Your task to perform on an android device: see creations saved in the google photos Image 0: 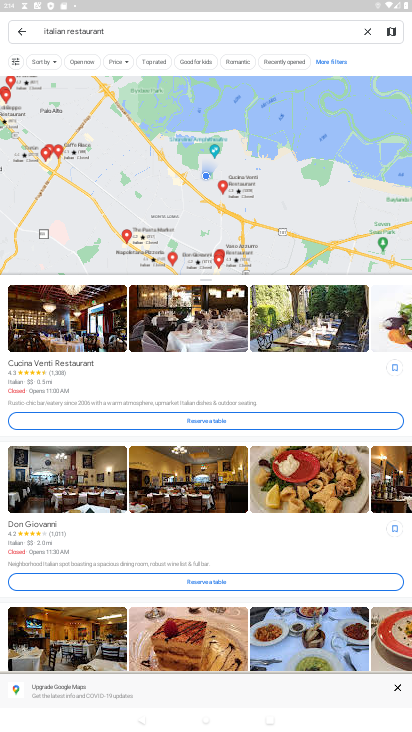
Step 0: press home button
Your task to perform on an android device: see creations saved in the google photos Image 1: 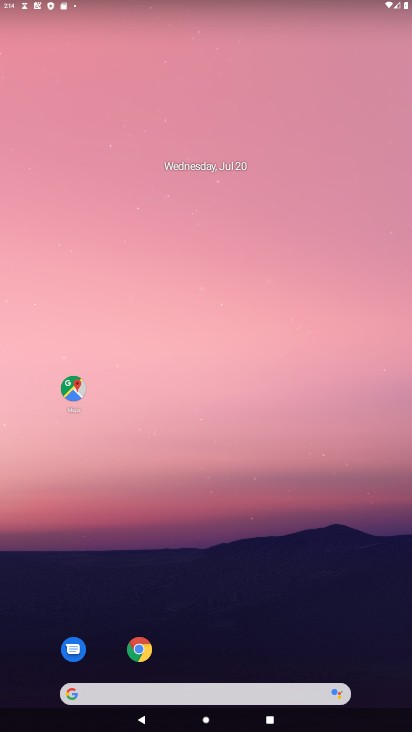
Step 1: drag from (196, 655) to (293, 142)
Your task to perform on an android device: see creations saved in the google photos Image 2: 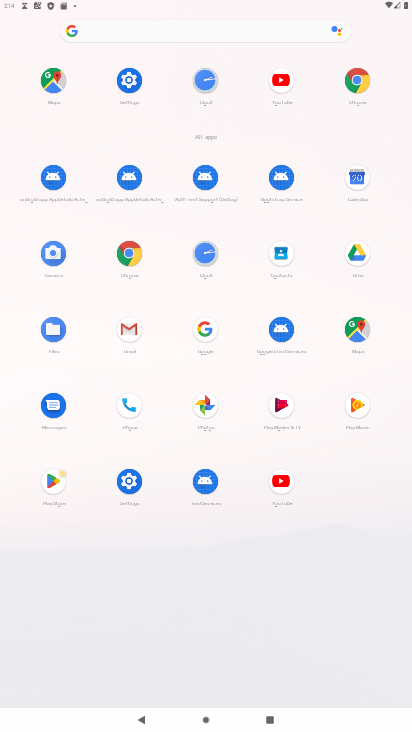
Step 2: click (212, 411)
Your task to perform on an android device: see creations saved in the google photos Image 3: 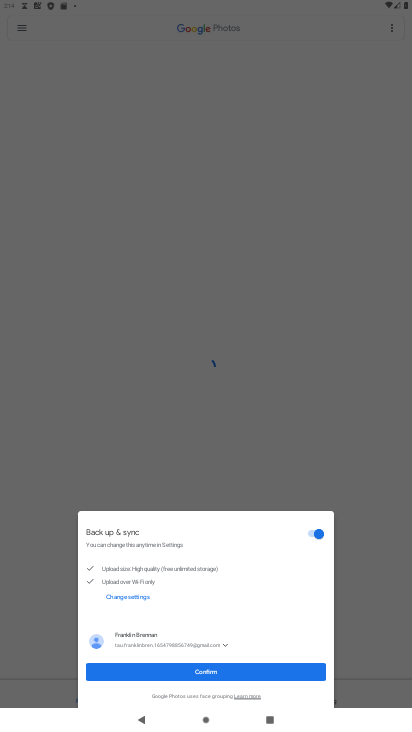
Step 3: click (202, 670)
Your task to perform on an android device: see creations saved in the google photos Image 4: 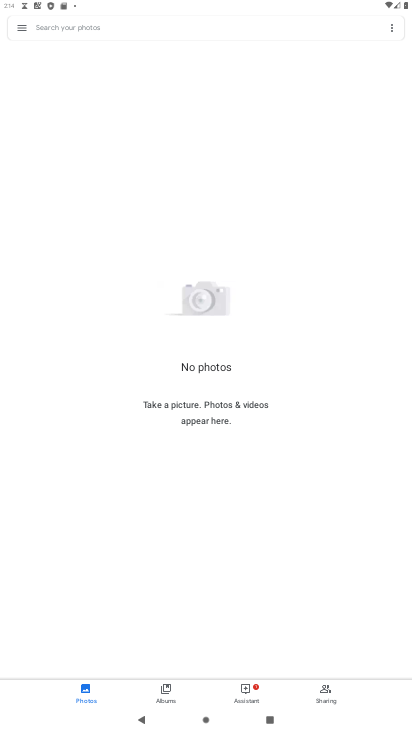
Step 4: click (162, 26)
Your task to perform on an android device: see creations saved in the google photos Image 5: 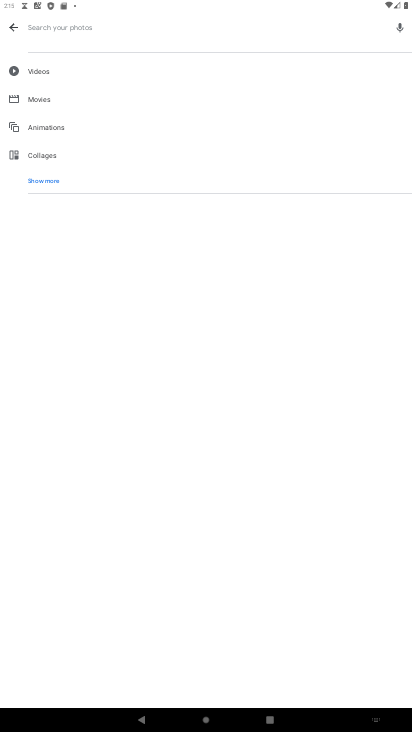
Step 5: type "creations"
Your task to perform on an android device: see creations saved in the google photos Image 6: 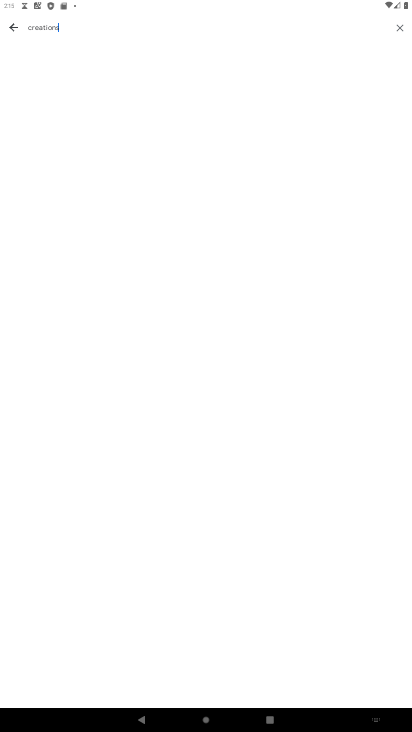
Step 6: click (161, 213)
Your task to perform on an android device: see creations saved in the google photos Image 7: 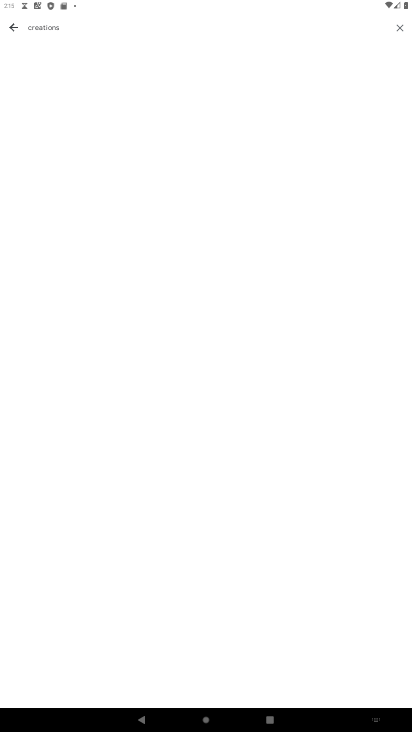
Step 7: task complete